Your task to perform on an android device: Show me productivity apps on the Play Store Image 0: 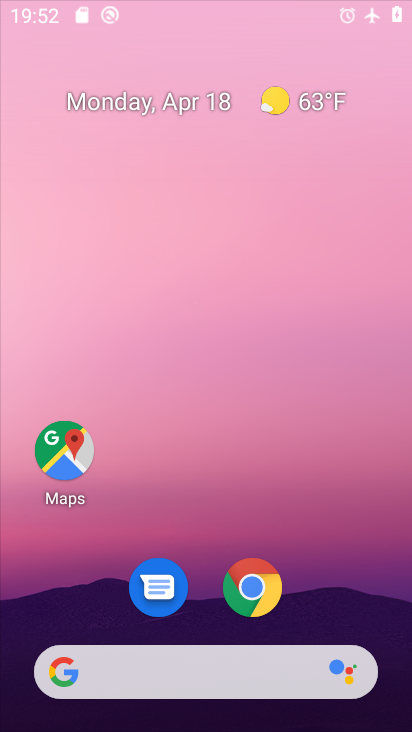
Step 0: click (256, 124)
Your task to perform on an android device: Show me productivity apps on the Play Store Image 1: 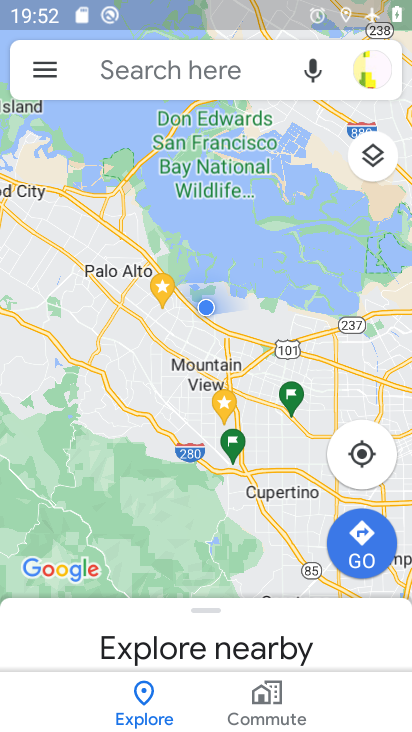
Step 1: press back button
Your task to perform on an android device: Show me productivity apps on the Play Store Image 2: 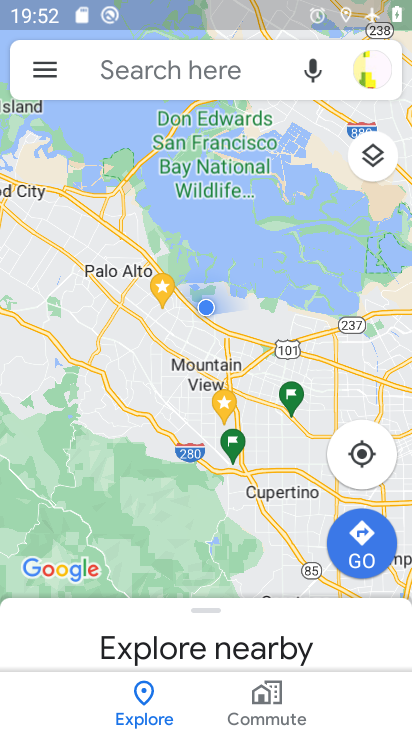
Step 2: press back button
Your task to perform on an android device: Show me productivity apps on the Play Store Image 3: 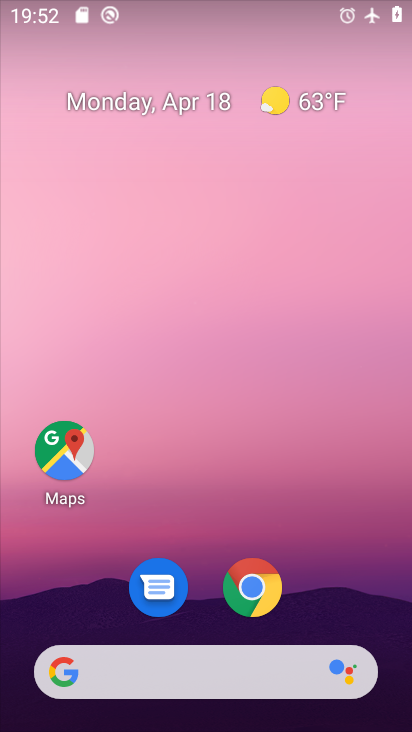
Step 3: drag from (326, 593) to (298, 168)
Your task to perform on an android device: Show me productivity apps on the Play Store Image 4: 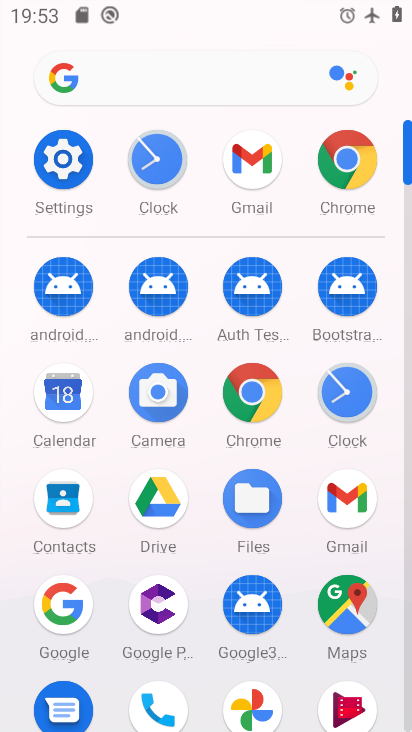
Step 4: click (75, 182)
Your task to perform on an android device: Show me productivity apps on the Play Store Image 5: 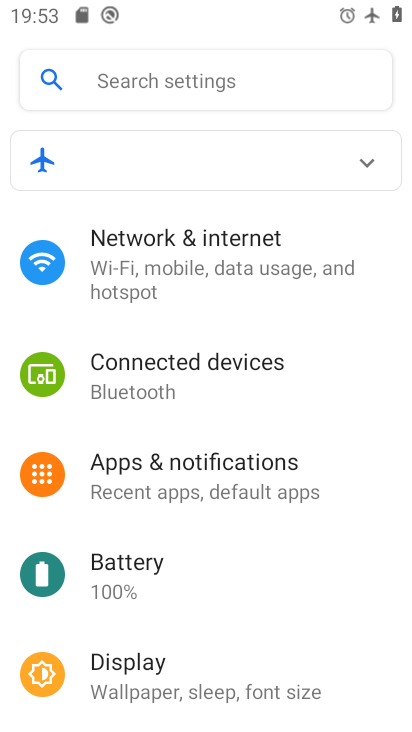
Step 5: click (366, 158)
Your task to perform on an android device: Show me productivity apps on the Play Store Image 6: 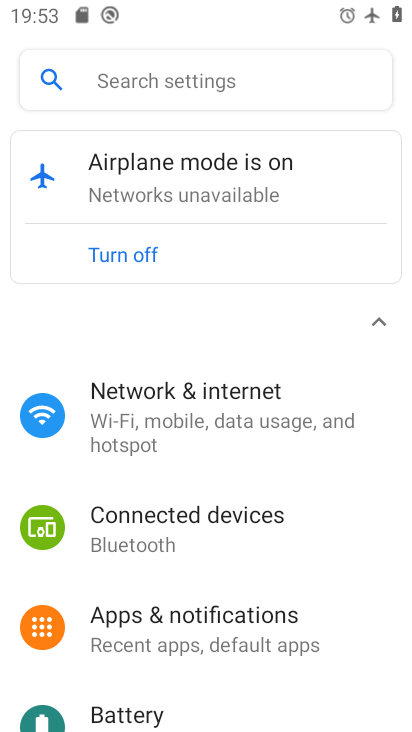
Step 6: click (141, 250)
Your task to perform on an android device: Show me productivity apps on the Play Store Image 7: 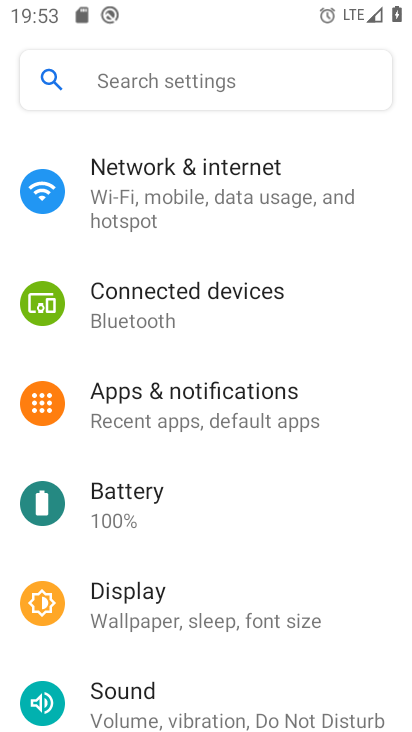
Step 7: click (329, 186)
Your task to perform on an android device: Show me productivity apps on the Play Store Image 8: 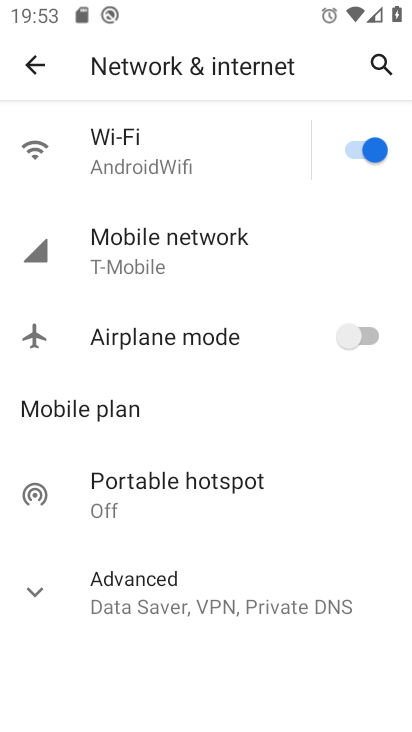
Step 8: press home button
Your task to perform on an android device: Show me productivity apps on the Play Store Image 9: 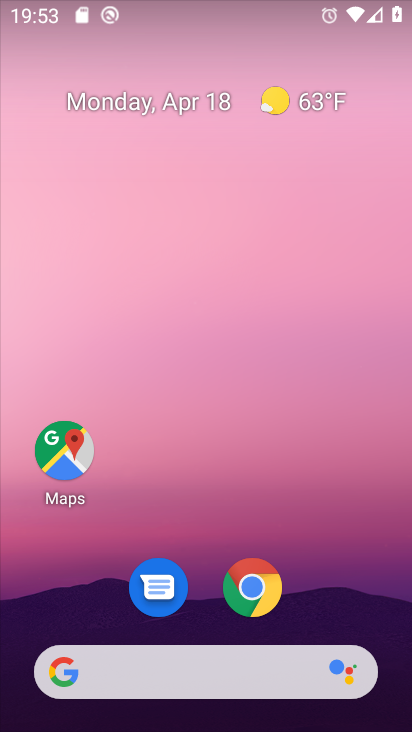
Step 9: drag from (228, 524) to (215, 188)
Your task to perform on an android device: Show me productivity apps on the Play Store Image 10: 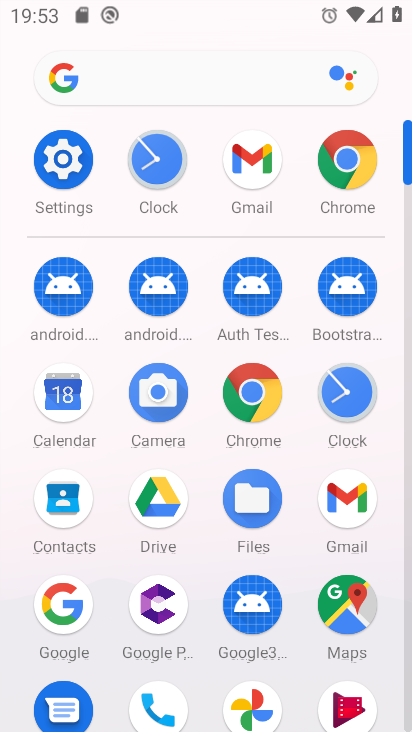
Step 10: click (406, 522)
Your task to perform on an android device: Show me productivity apps on the Play Store Image 11: 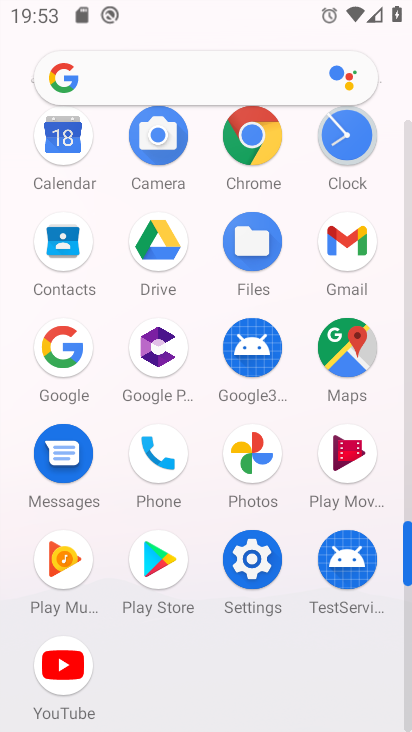
Step 11: click (168, 580)
Your task to perform on an android device: Show me productivity apps on the Play Store Image 12: 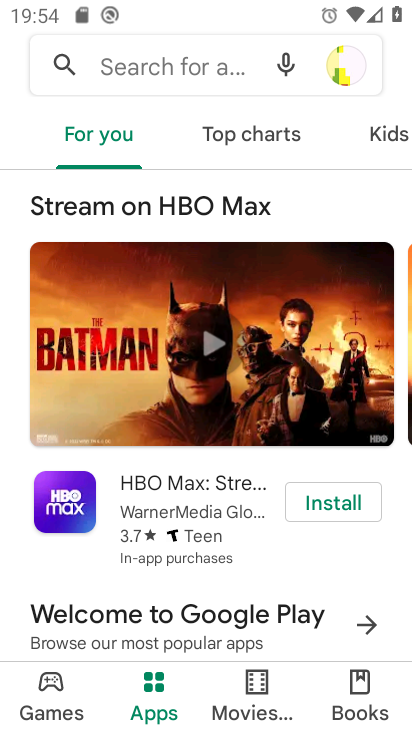
Step 12: drag from (300, 235) to (260, 667)
Your task to perform on an android device: Show me productivity apps on the Play Store Image 13: 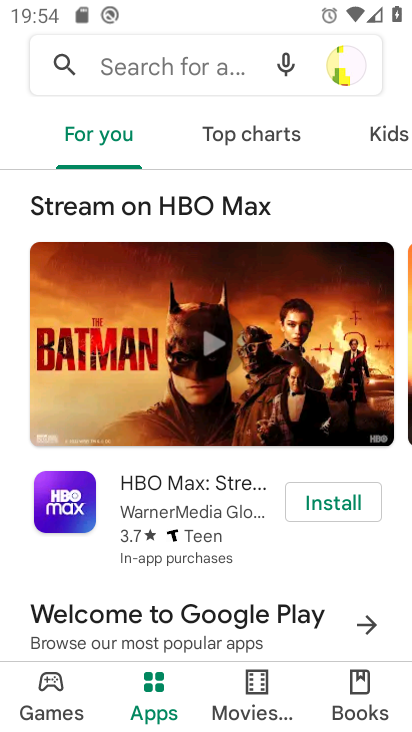
Step 13: drag from (294, 175) to (245, 531)
Your task to perform on an android device: Show me productivity apps on the Play Store Image 14: 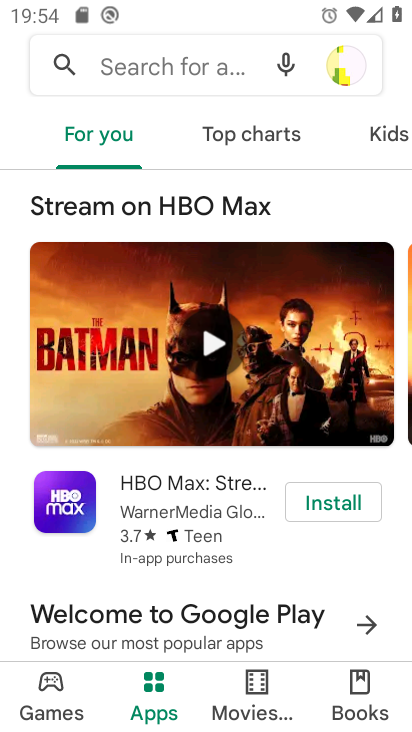
Step 14: click (243, 148)
Your task to perform on an android device: Show me productivity apps on the Play Store Image 15: 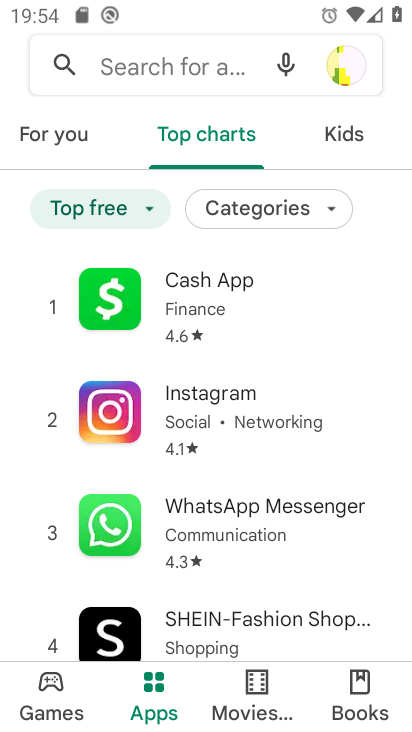
Step 15: click (238, 201)
Your task to perform on an android device: Show me productivity apps on the Play Store Image 16: 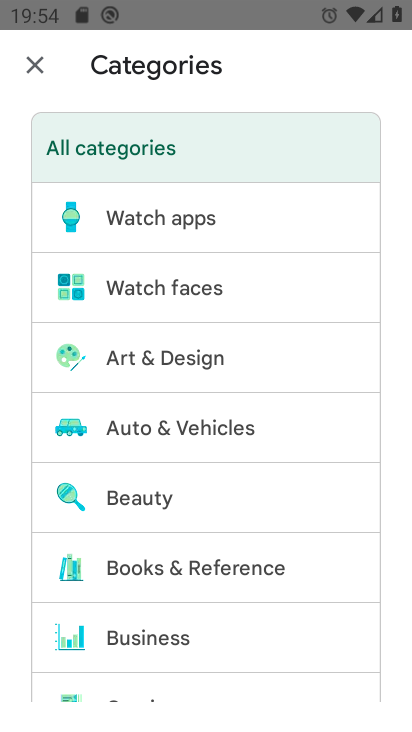
Step 16: drag from (188, 642) to (232, 338)
Your task to perform on an android device: Show me productivity apps on the Play Store Image 17: 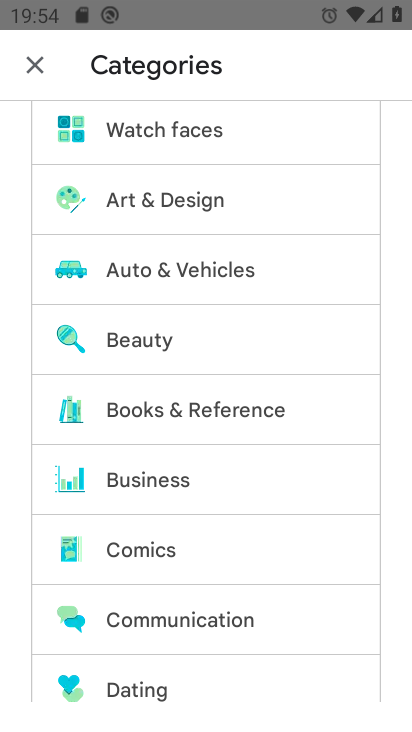
Step 17: drag from (172, 634) to (225, 317)
Your task to perform on an android device: Show me productivity apps on the Play Store Image 18: 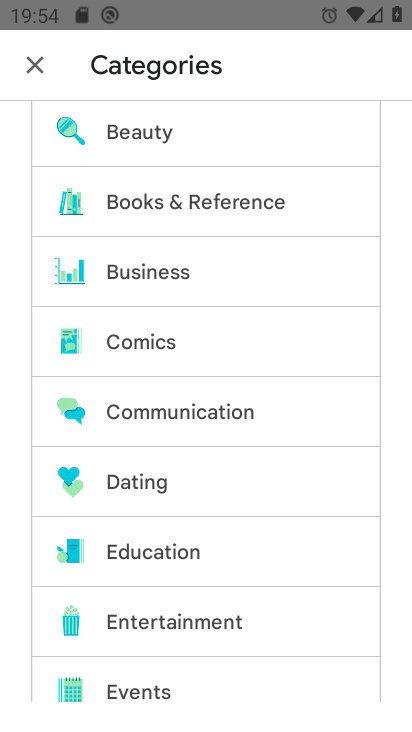
Step 18: drag from (181, 622) to (211, 400)
Your task to perform on an android device: Show me productivity apps on the Play Store Image 19: 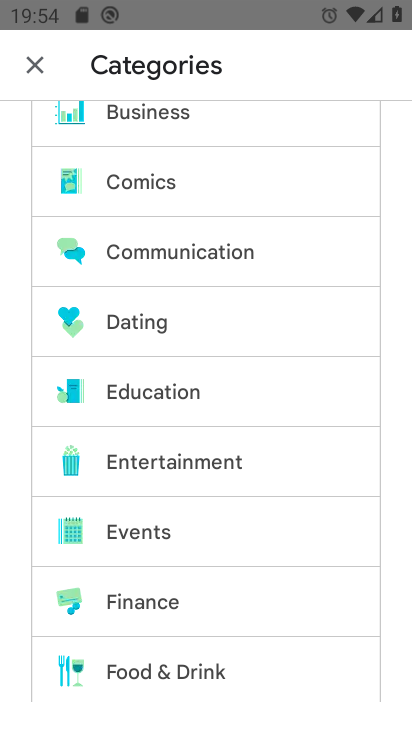
Step 19: drag from (174, 589) to (212, 279)
Your task to perform on an android device: Show me productivity apps on the Play Store Image 20: 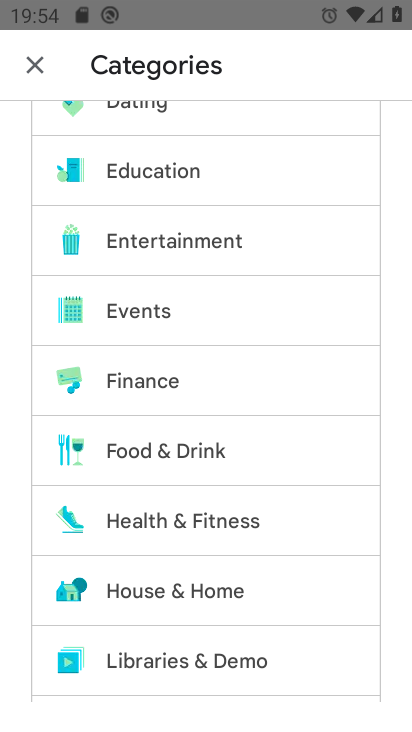
Step 20: drag from (217, 617) to (257, 323)
Your task to perform on an android device: Show me productivity apps on the Play Store Image 21: 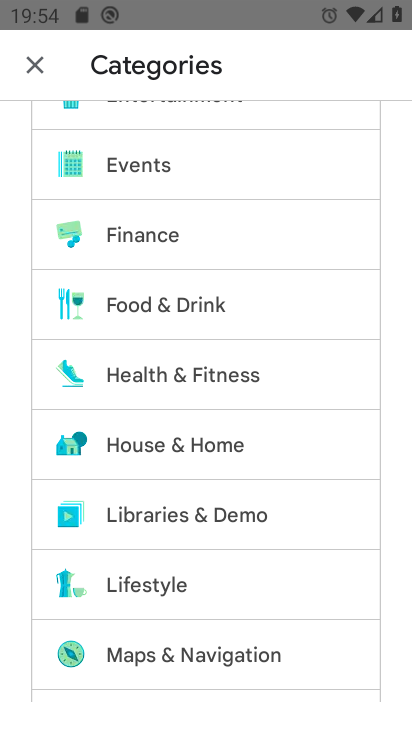
Step 21: drag from (190, 629) to (228, 353)
Your task to perform on an android device: Show me productivity apps on the Play Store Image 22: 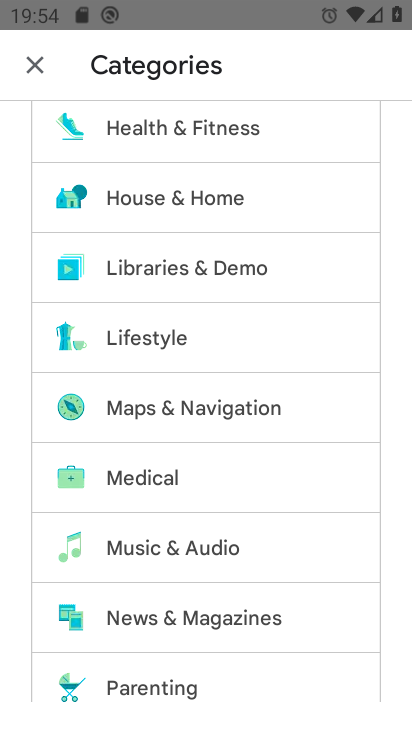
Step 22: drag from (180, 577) to (241, 261)
Your task to perform on an android device: Show me productivity apps on the Play Store Image 23: 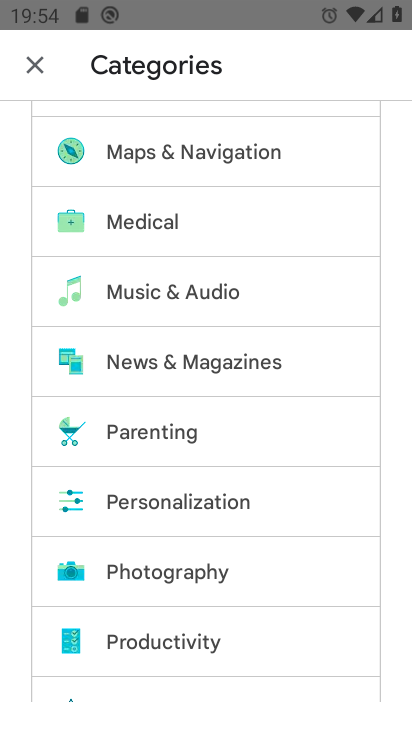
Step 23: click (195, 488)
Your task to perform on an android device: Show me productivity apps on the Play Store Image 24: 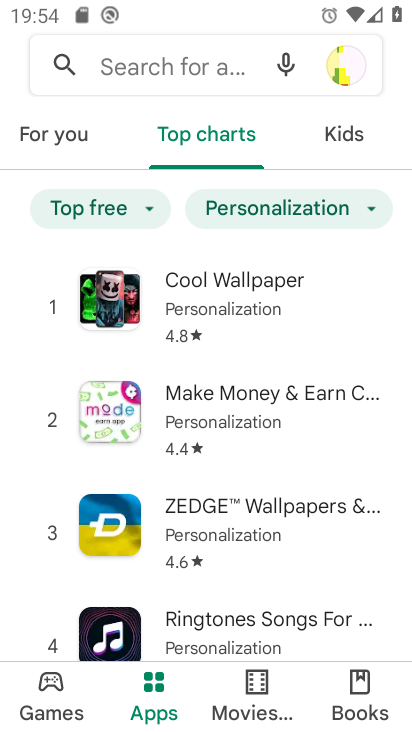
Step 24: click (287, 221)
Your task to perform on an android device: Show me productivity apps on the Play Store Image 25: 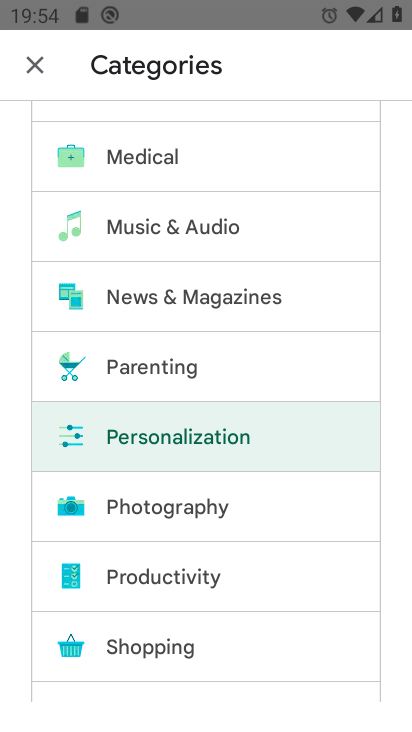
Step 25: click (221, 586)
Your task to perform on an android device: Show me productivity apps on the Play Store Image 26: 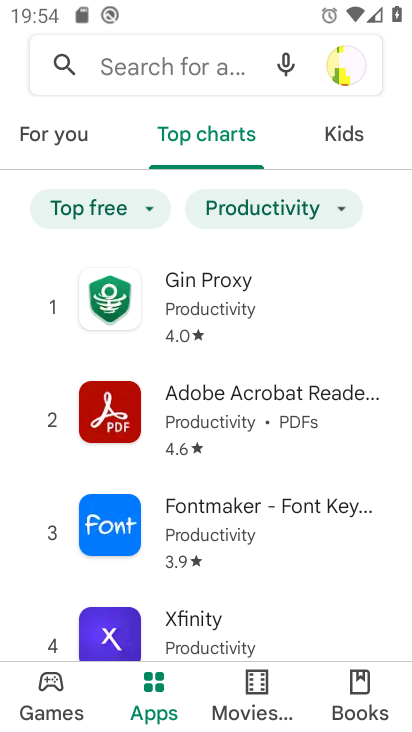
Step 26: task complete